Your task to perform on an android device: empty trash in the gmail app Image 0: 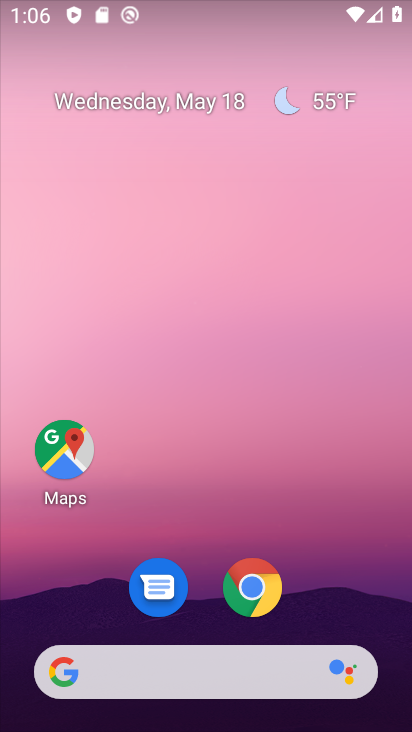
Step 0: drag from (200, 485) to (262, 72)
Your task to perform on an android device: empty trash in the gmail app Image 1: 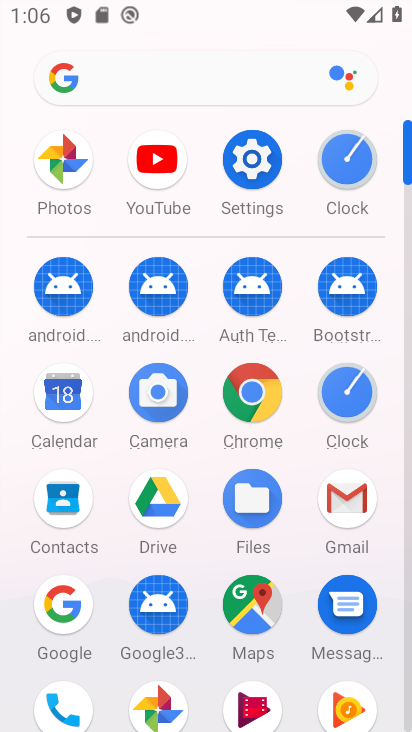
Step 1: drag from (223, 576) to (274, 302)
Your task to perform on an android device: empty trash in the gmail app Image 2: 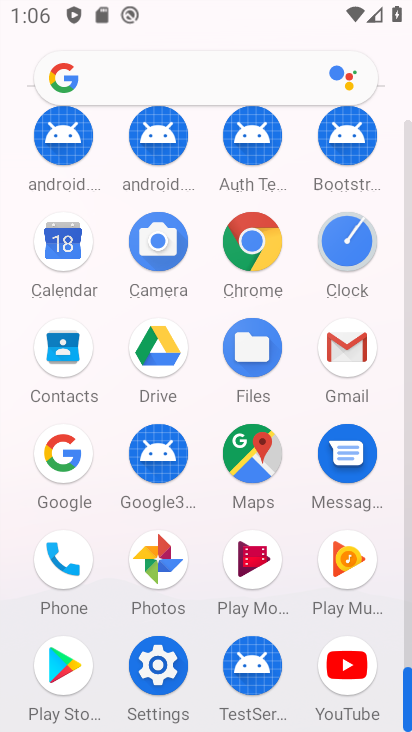
Step 2: click (335, 344)
Your task to perform on an android device: empty trash in the gmail app Image 3: 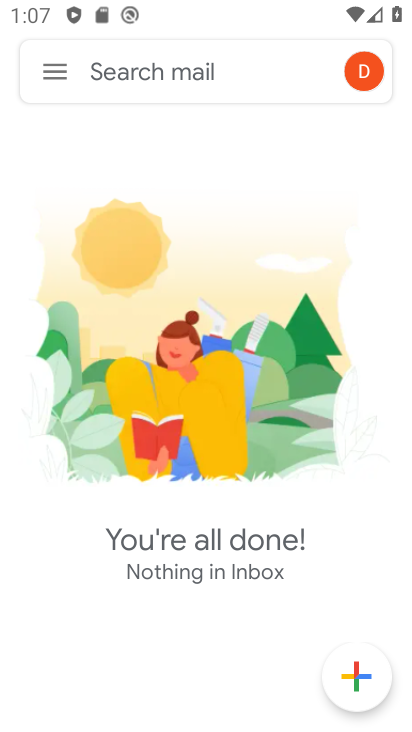
Step 3: click (53, 71)
Your task to perform on an android device: empty trash in the gmail app Image 4: 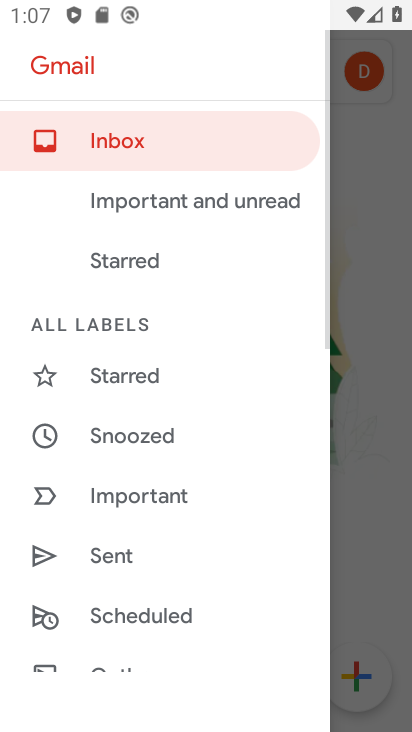
Step 4: drag from (141, 549) to (244, 108)
Your task to perform on an android device: empty trash in the gmail app Image 5: 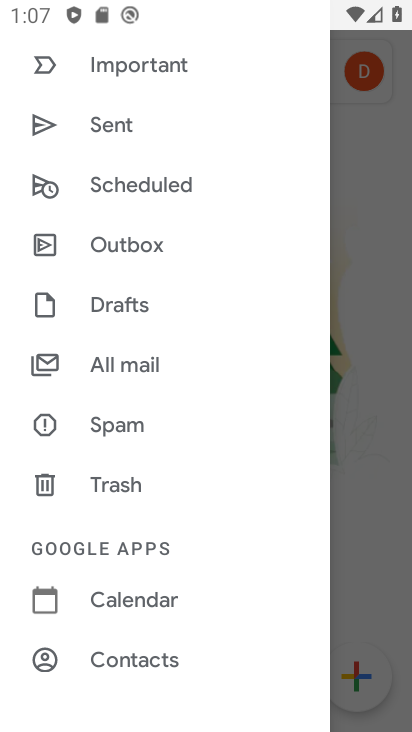
Step 5: click (119, 493)
Your task to perform on an android device: empty trash in the gmail app Image 6: 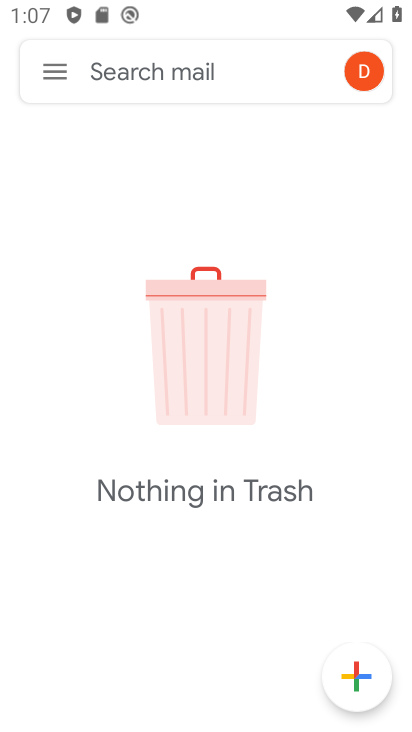
Step 6: task complete